Your task to perform on an android device: check battery use Image 0: 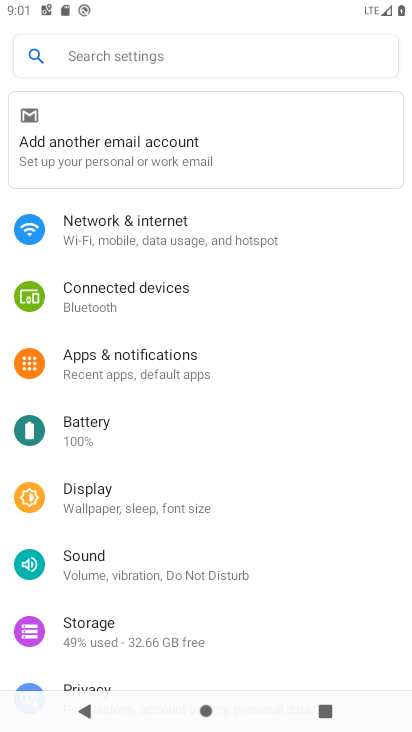
Step 0: press home button
Your task to perform on an android device: check battery use Image 1: 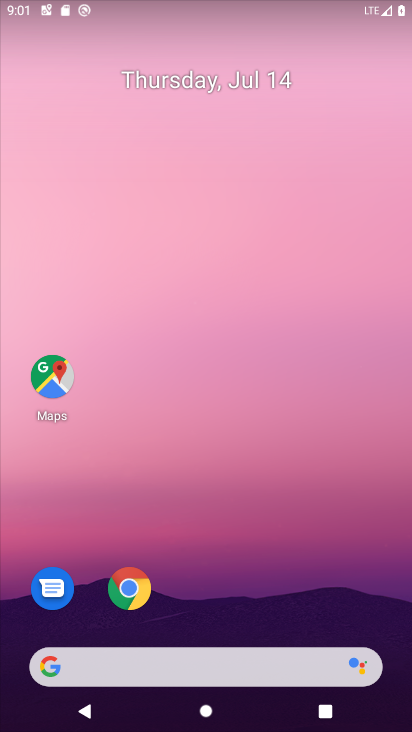
Step 1: drag from (216, 594) to (253, 63)
Your task to perform on an android device: check battery use Image 2: 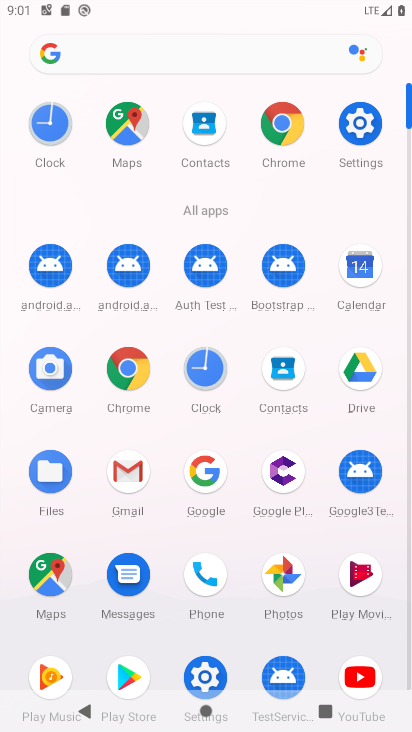
Step 2: click (207, 666)
Your task to perform on an android device: check battery use Image 3: 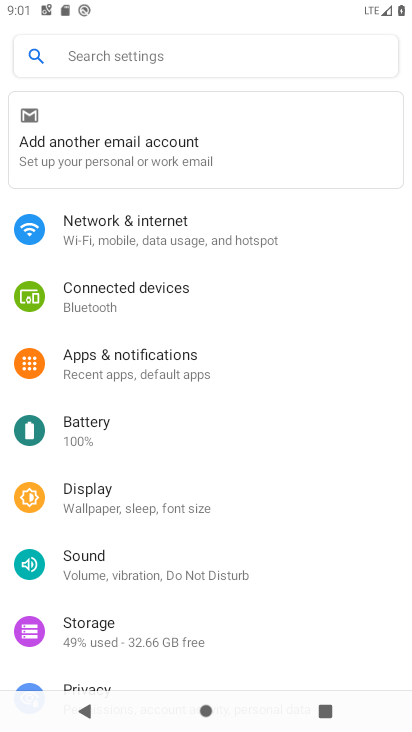
Step 3: click (97, 424)
Your task to perform on an android device: check battery use Image 4: 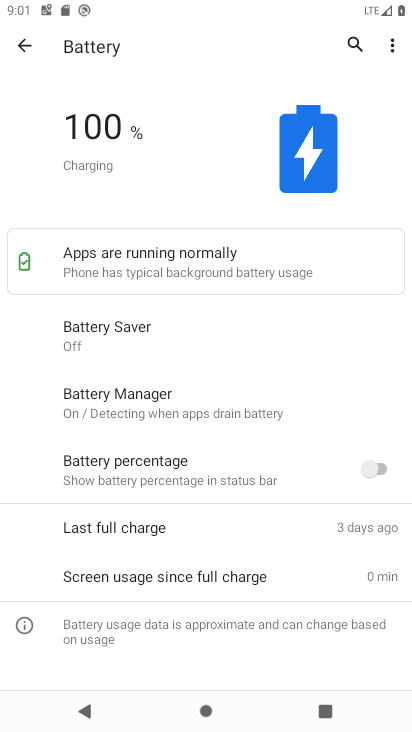
Step 4: task complete